Your task to perform on an android device: Open Reddit.com Image 0: 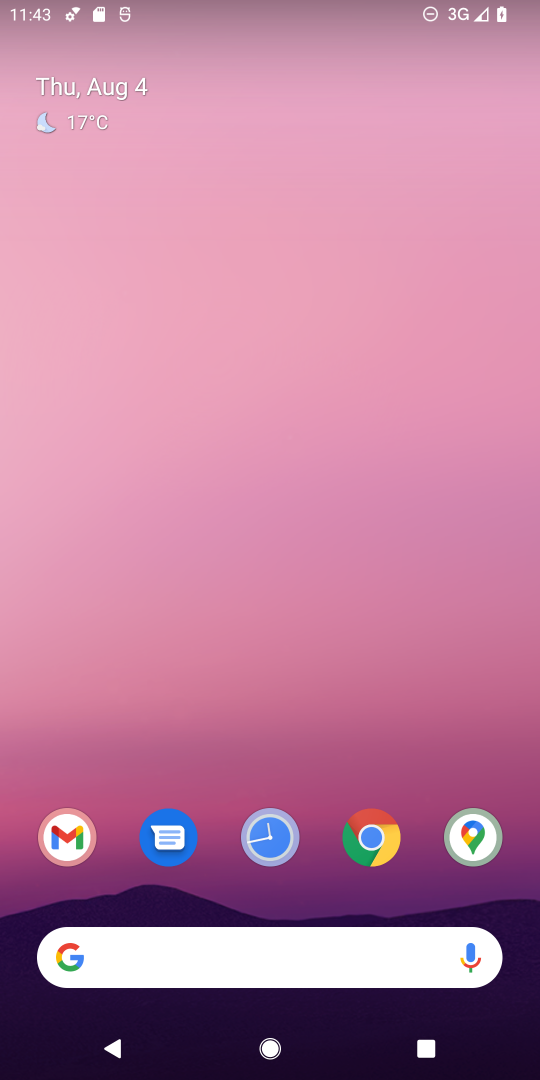
Step 0: drag from (426, 873) to (242, 50)
Your task to perform on an android device: Open Reddit.com Image 1: 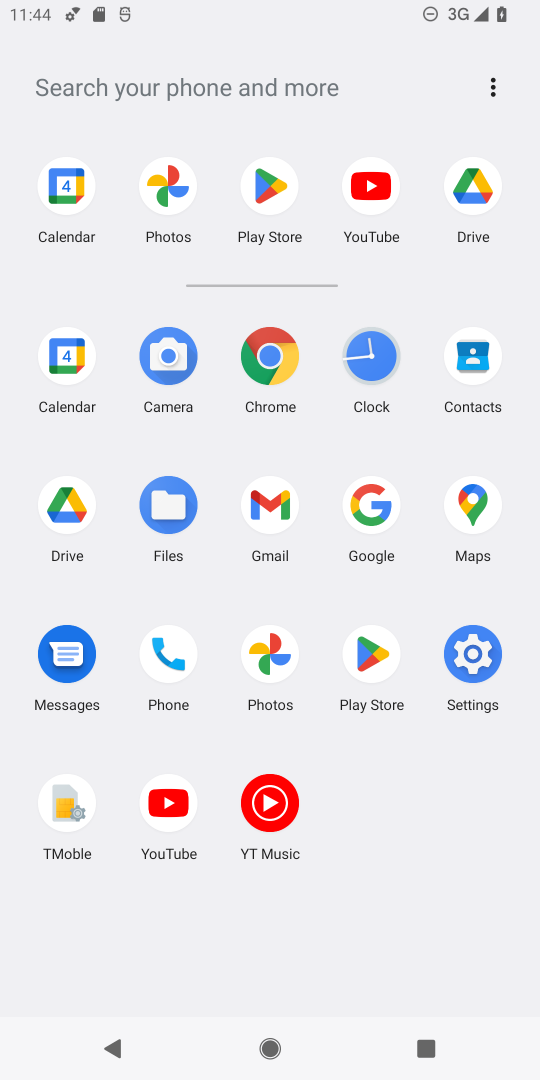
Step 1: click (382, 501)
Your task to perform on an android device: Open Reddit.com Image 2: 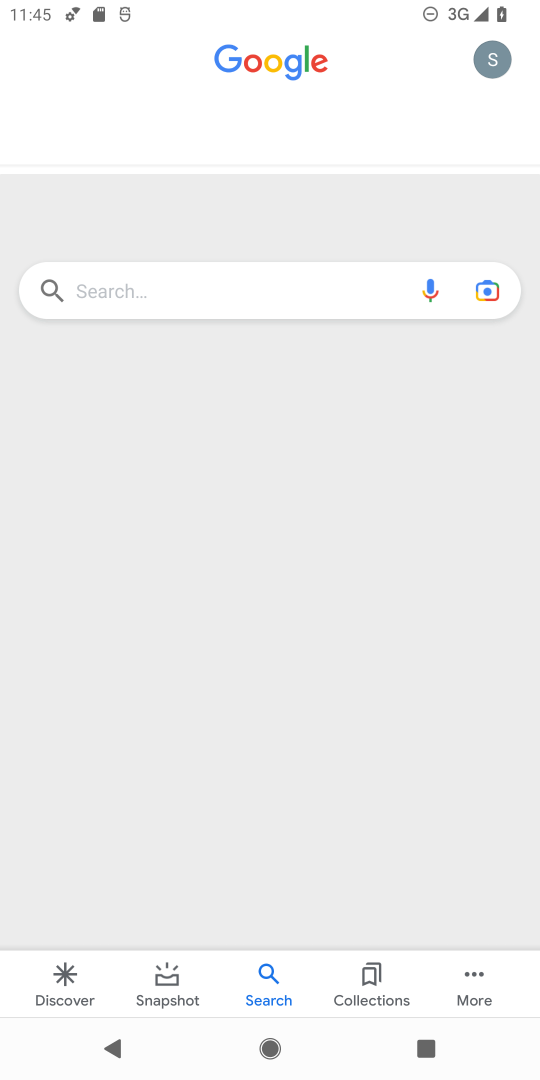
Step 2: click (151, 290)
Your task to perform on an android device: Open Reddit.com Image 3: 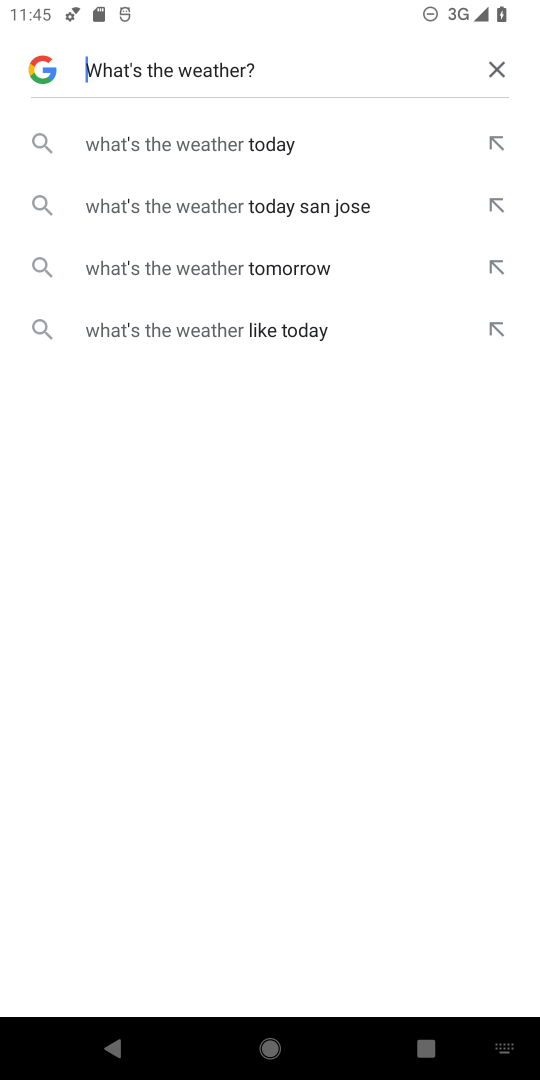
Step 3: click (499, 66)
Your task to perform on an android device: Open Reddit.com Image 4: 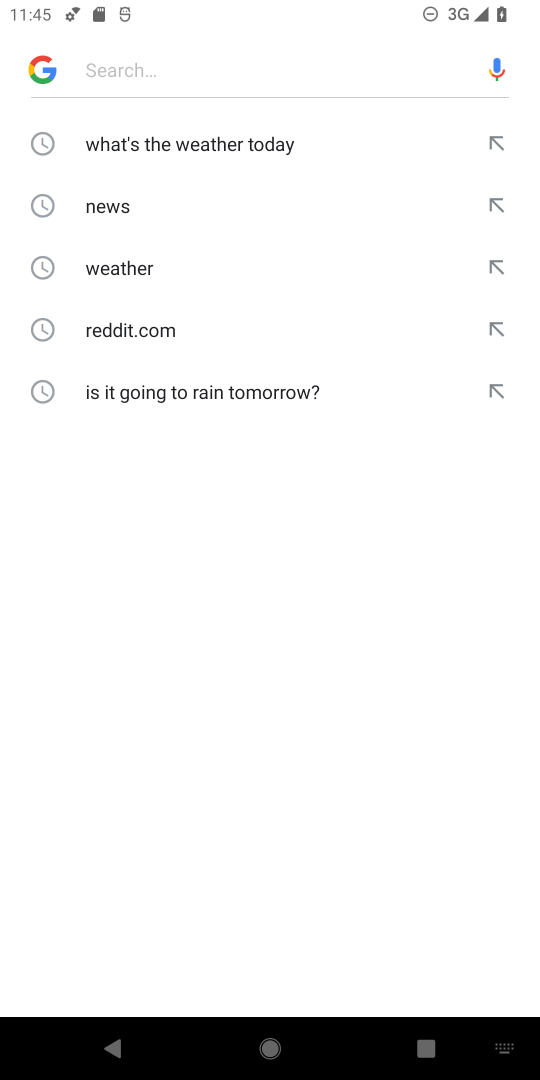
Step 4: type "Reddit.com"
Your task to perform on an android device: Open Reddit.com Image 5: 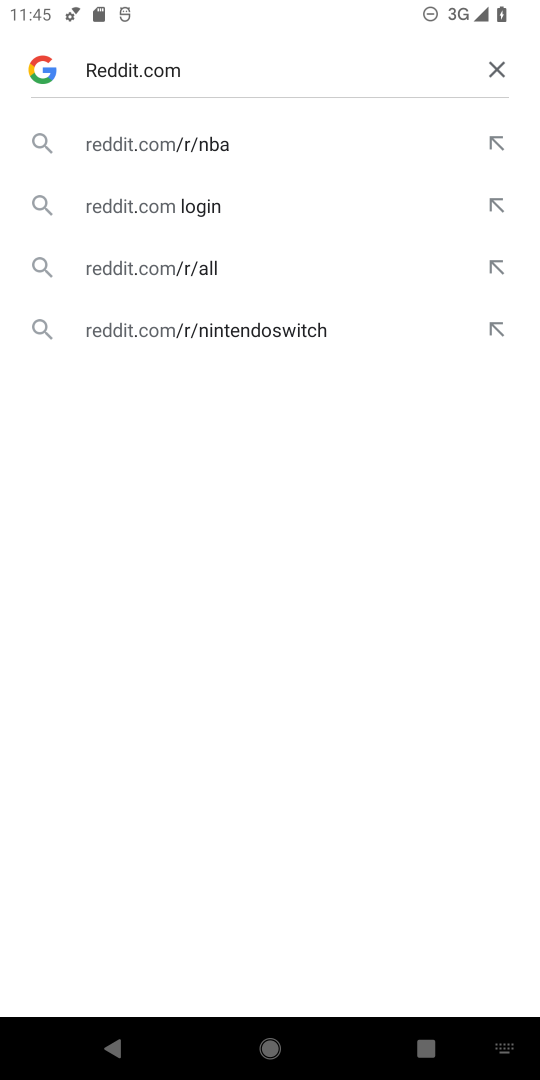
Step 5: click (160, 136)
Your task to perform on an android device: Open Reddit.com Image 6: 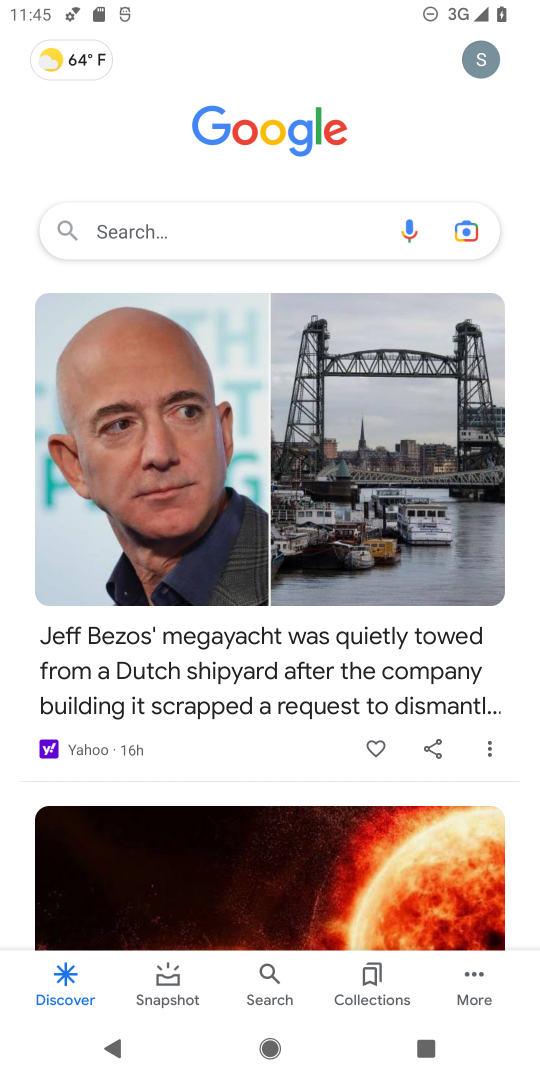
Step 6: task complete